Your task to perform on an android device: Clear the cart on ebay.com. Add "bose soundsport free" to the cart on ebay.com Image 0: 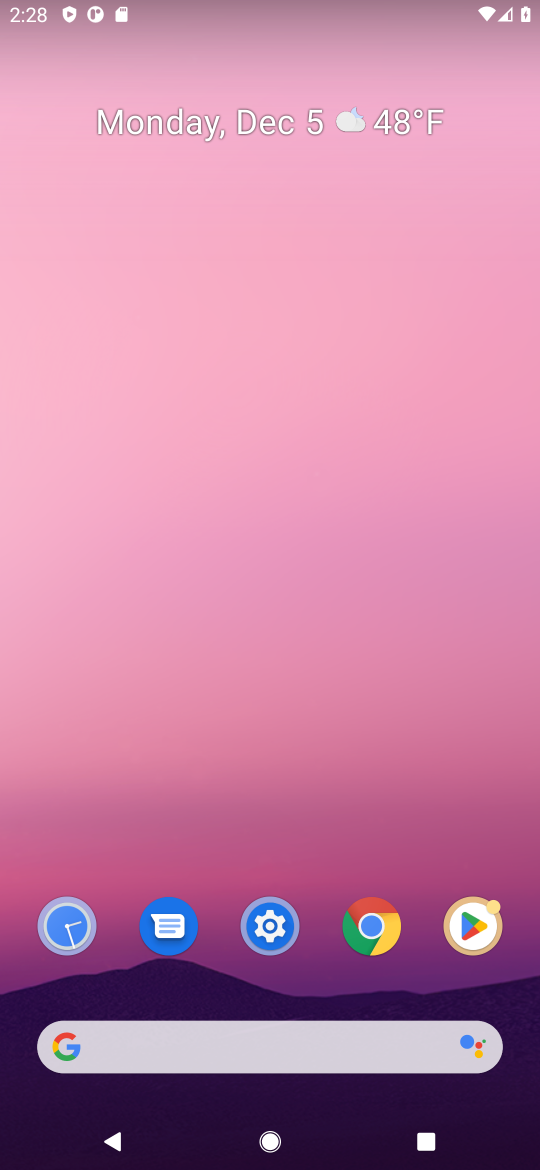
Step 0: click (374, 925)
Your task to perform on an android device: Clear the cart on ebay.com. Add "bose soundsport free" to the cart on ebay.com Image 1: 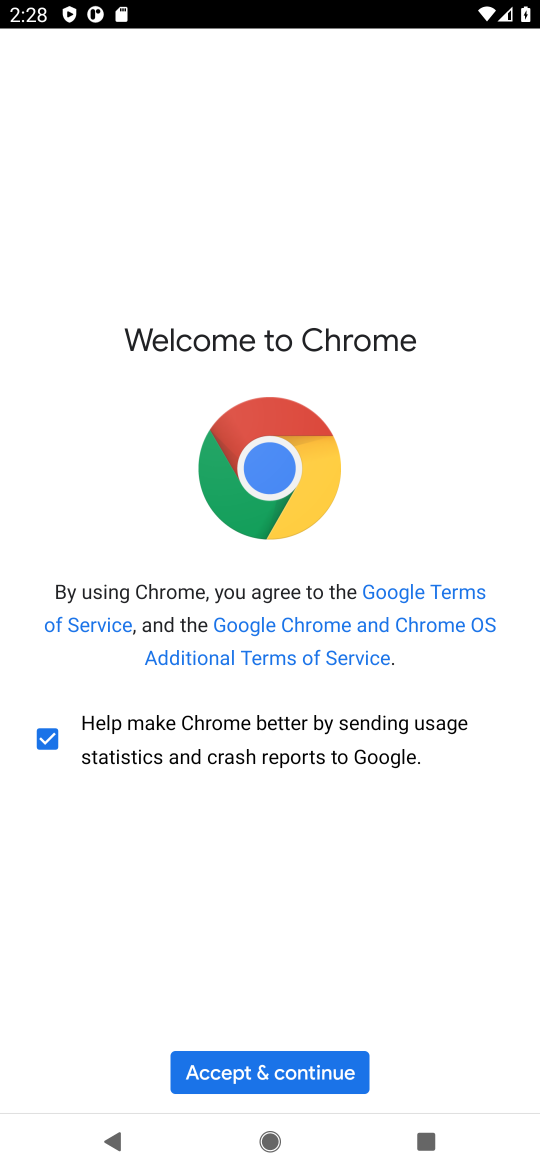
Step 1: click (309, 1059)
Your task to perform on an android device: Clear the cart on ebay.com. Add "bose soundsport free" to the cart on ebay.com Image 2: 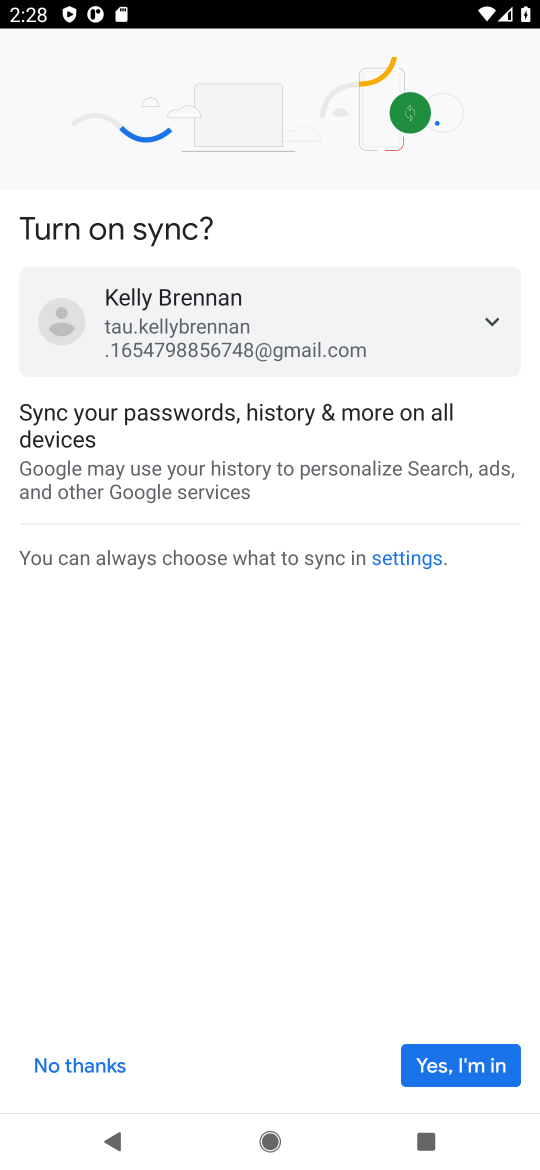
Step 2: click (447, 1074)
Your task to perform on an android device: Clear the cart on ebay.com. Add "bose soundsport free" to the cart on ebay.com Image 3: 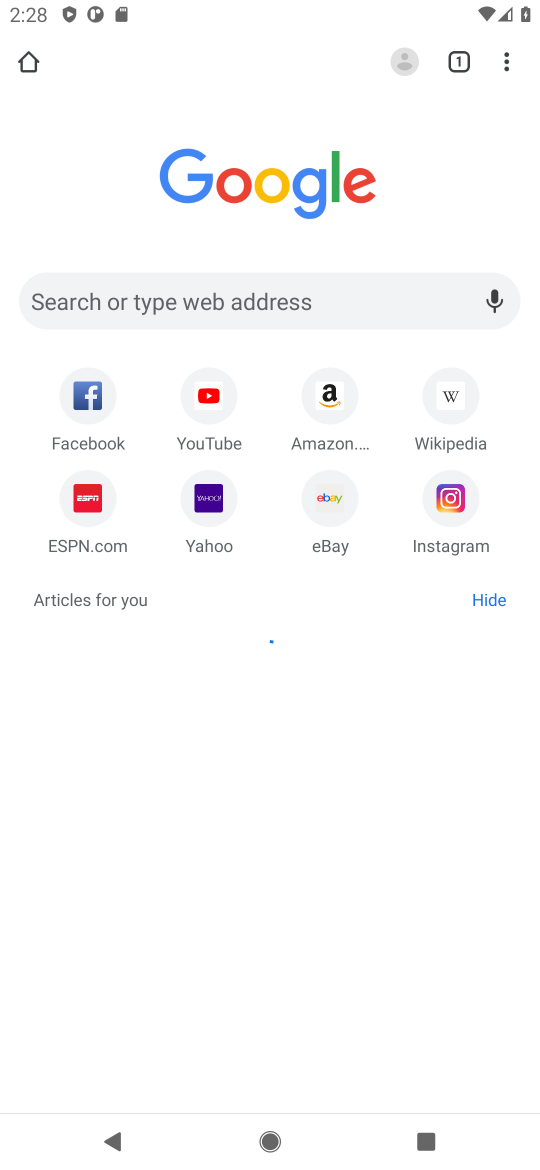
Step 3: click (321, 306)
Your task to perform on an android device: Clear the cart on ebay.com. Add "bose soundsport free" to the cart on ebay.com Image 4: 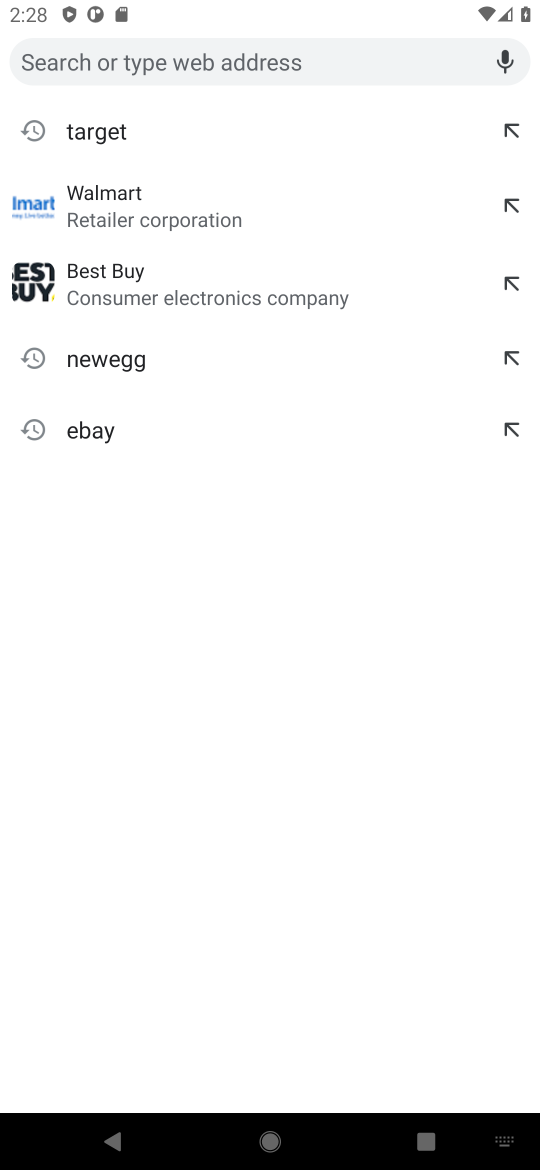
Step 4: type "ebay.com"
Your task to perform on an android device: Clear the cart on ebay.com. Add "bose soundsport free" to the cart on ebay.com Image 5: 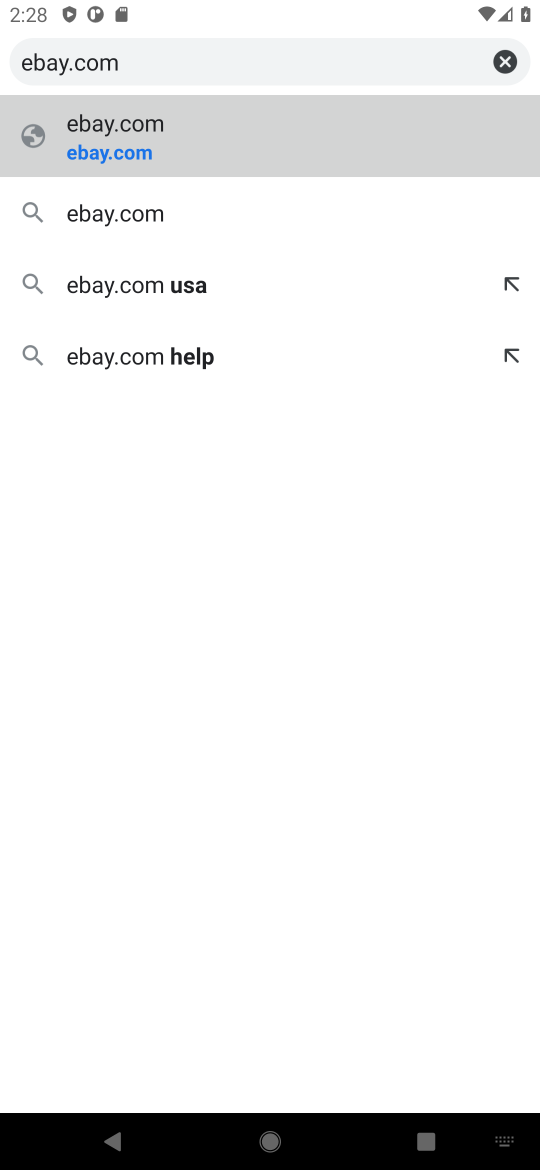
Step 5: press enter
Your task to perform on an android device: Clear the cart on ebay.com. Add "bose soundsport free" to the cart on ebay.com Image 6: 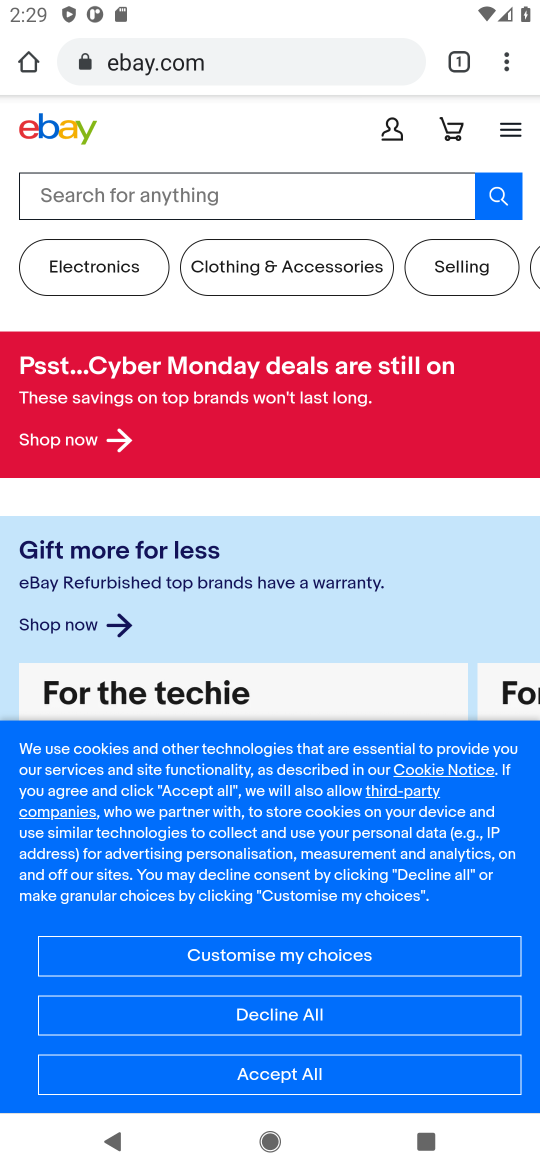
Step 6: click (273, 178)
Your task to perform on an android device: Clear the cart on ebay.com. Add "bose soundsport free" to the cart on ebay.com Image 7: 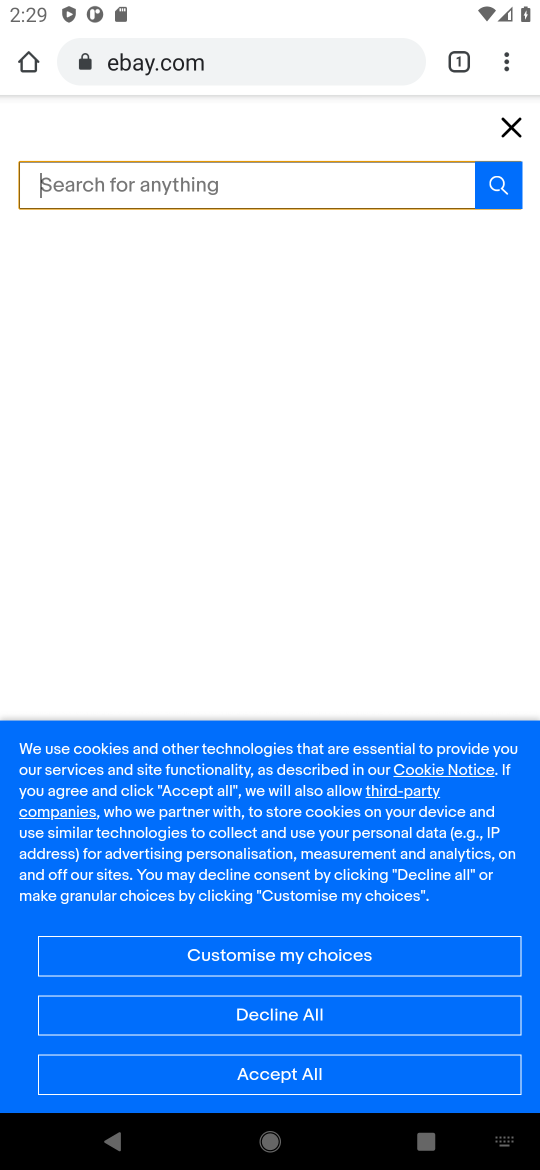
Step 7: press enter
Your task to perform on an android device: Clear the cart on ebay.com. Add "bose soundsport free" to the cart on ebay.com Image 8: 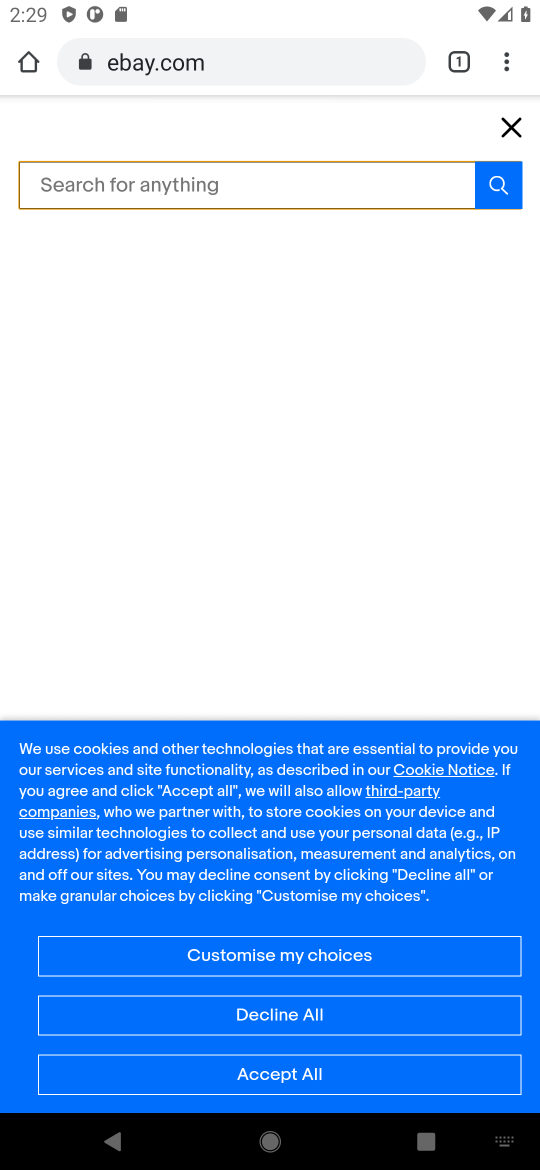
Step 8: type "bose soundsport free"
Your task to perform on an android device: Clear the cart on ebay.com. Add "bose soundsport free" to the cart on ebay.com Image 9: 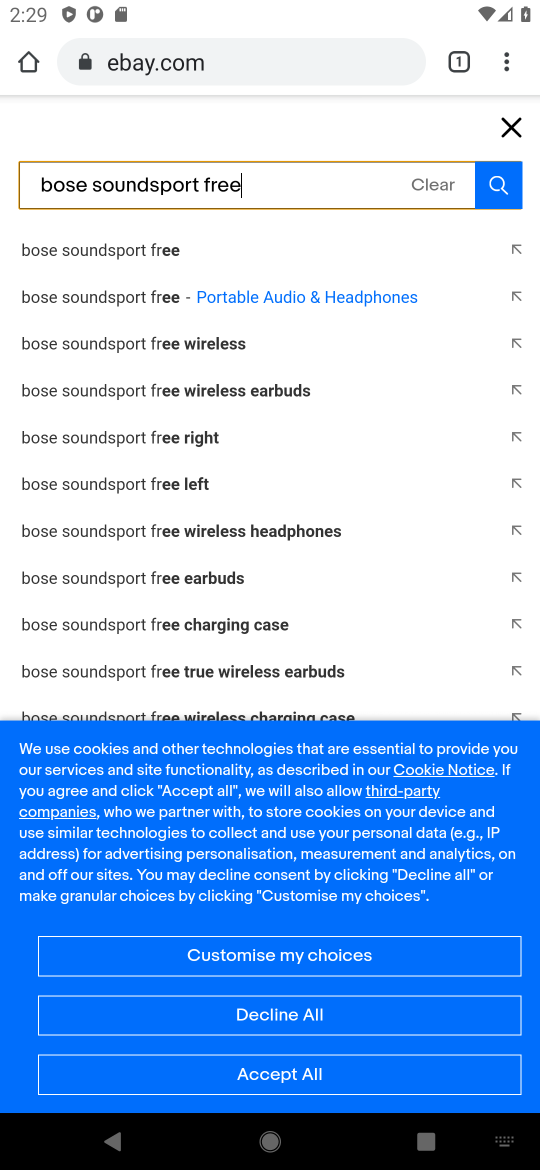
Step 9: click (112, 241)
Your task to perform on an android device: Clear the cart on ebay.com. Add "bose soundsport free" to the cart on ebay.com Image 10: 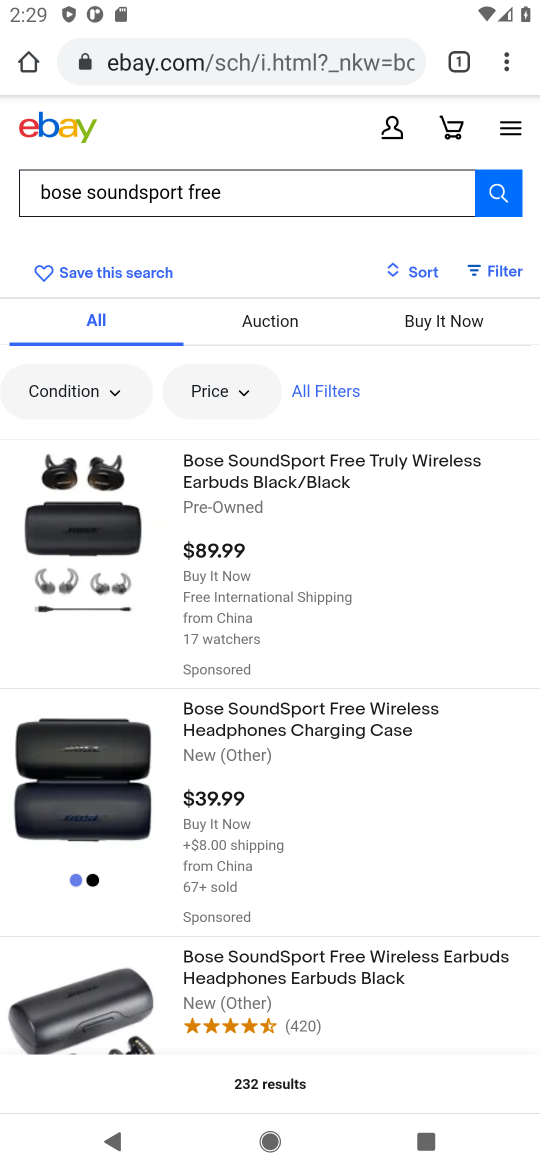
Step 10: click (107, 493)
Your task to perform on an android device: Clear the cart on ebay.com. Add "bose soundsport free" to the cart on ebay.com Image 11: 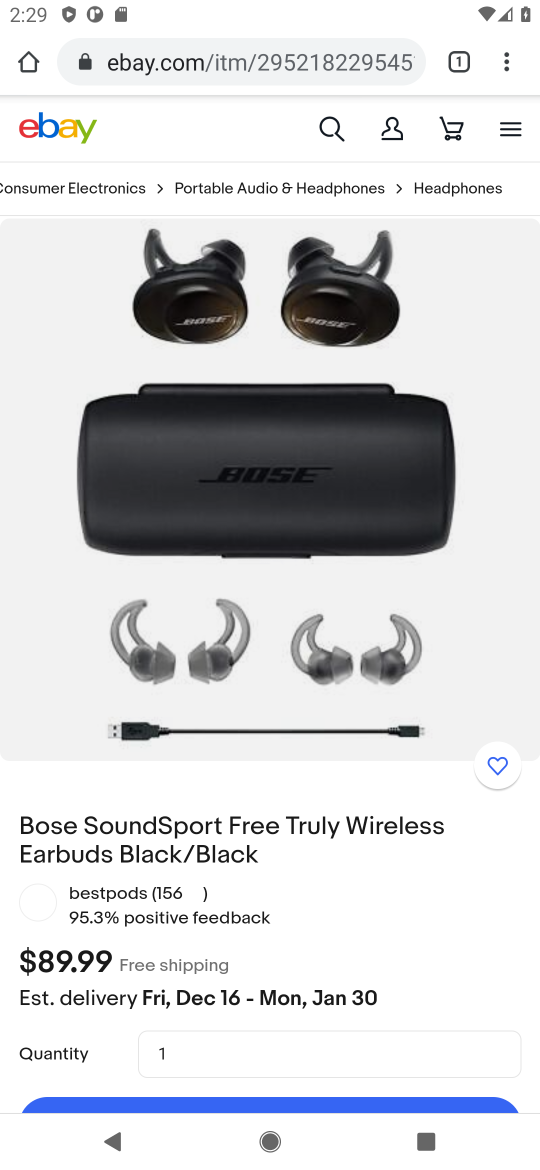
Step 11: drag from (498, 828) to (463, 565)
Your task to perform on an android device: Clear the cart on ebay.com. Add "bose soundsport free" to the cart on ebay.com Image 12: 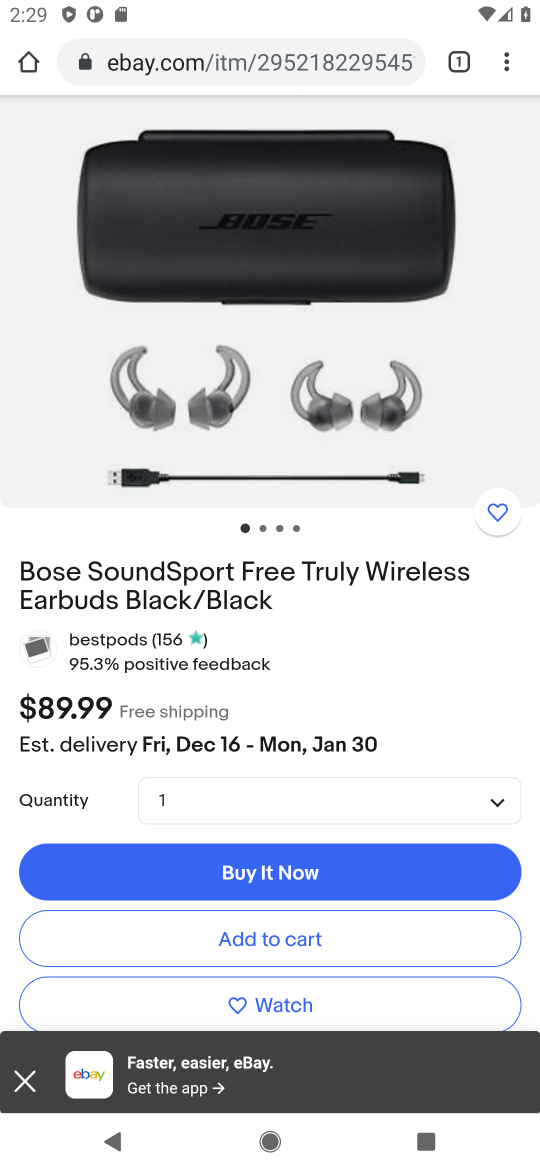
Step 12: click (294, 941)
Your task to perform on an android device: Clear the cart on ebay.com. Add "bose soundsport free" to the cart on ebay.com Image 13: 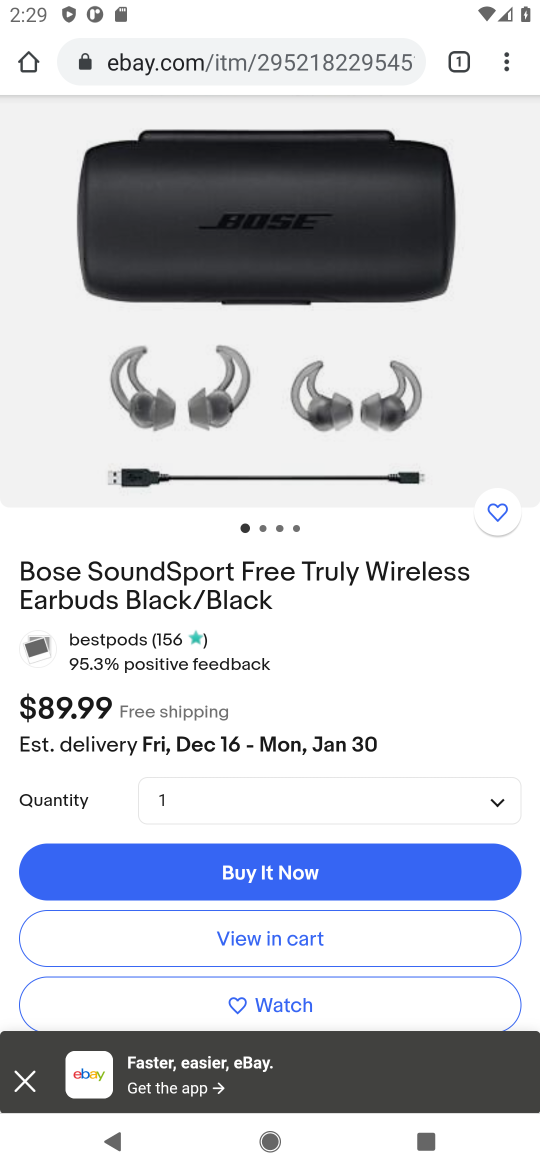
Step 13: click (294, 941)
Your task to perform on an android device: Clear the cart on ebay.com. Add "bose soundsport free" to the cart on ebay.com Image 14: 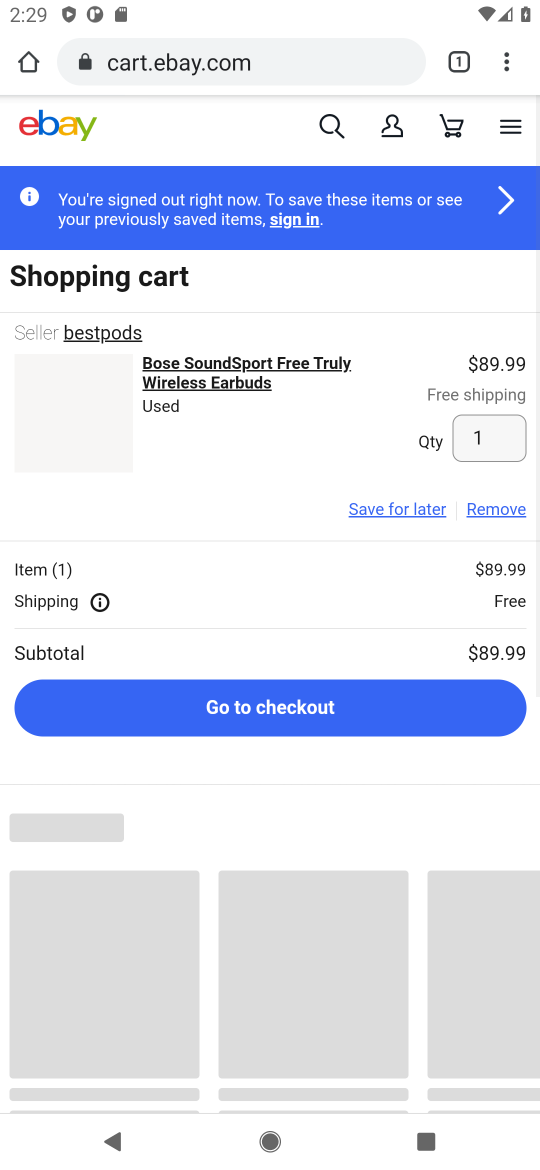
Step 14: click (272, 958)
Your task to perform on an android device: Clear the cart on ebay.com. Add "bose soundsport free" to the cart on ebay.com Image 15: 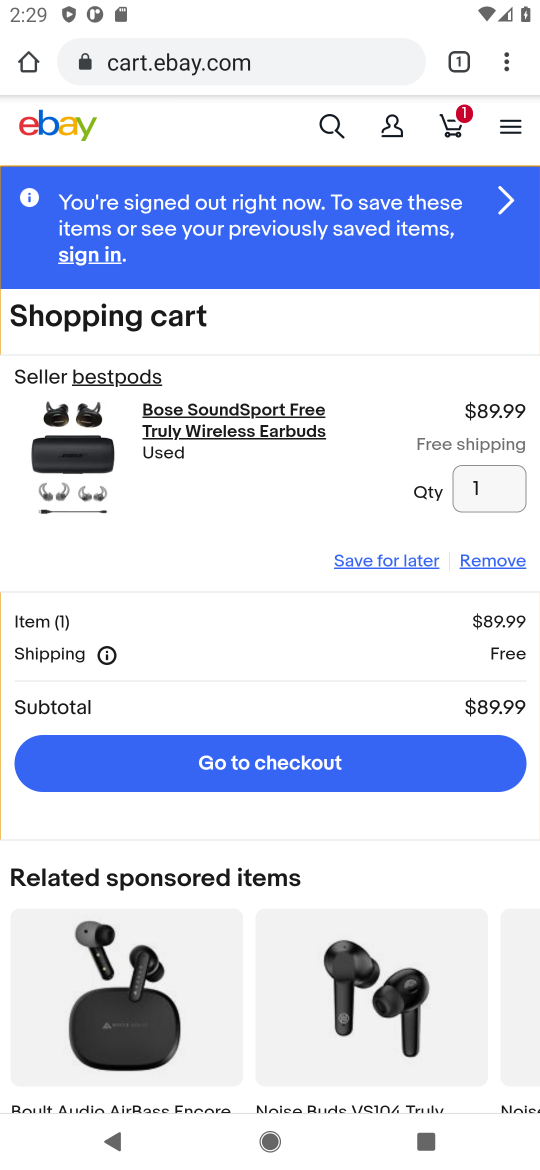
Step 15: task complete